Your task to perform on an android device: Open the Play Movies app and select the watchlist tab. Image 0: 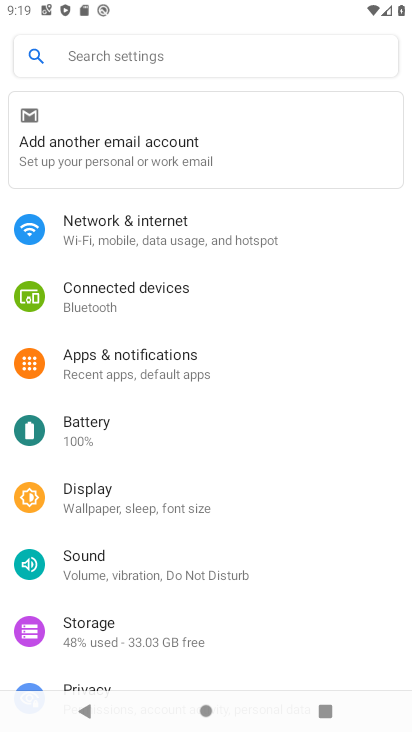
Step 0: press home button
Your task to perform on an android device: Open the Play Movies app and select the watchlist tab. Image 1: 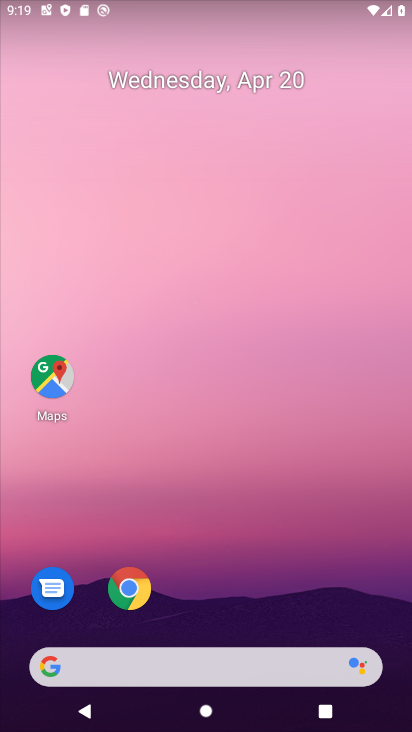
Step 1: drag from (214, 615) to (113, 123)
Your task to perform on an android device: Open the Play Movies app and select the watchlist tab. Image 2: 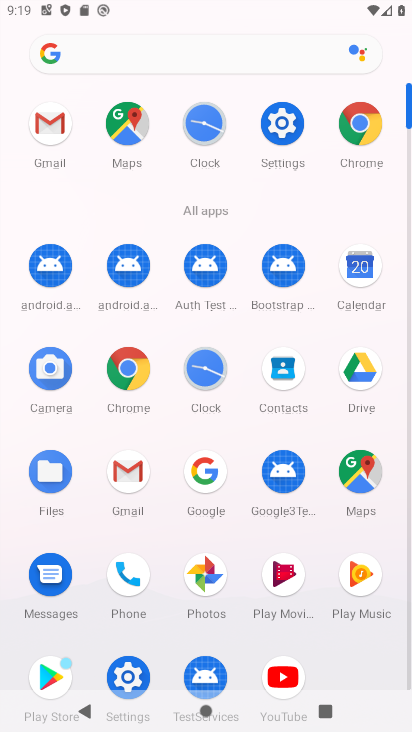
Step 2: click (276, 575)
Your task to perform on an android device: Open the Play Movies app and select the watchlist tab. Image 3: 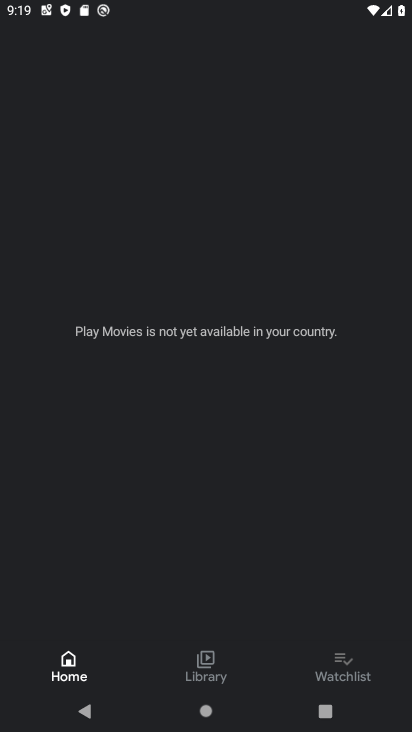
Step 3: click (351, 658)
Your task to perform on an android device: Open the Play Movies app and select the watchlist tab. Image 4: 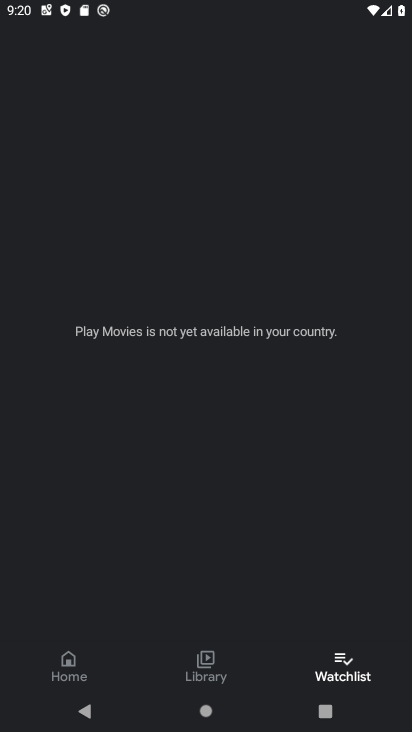
Step 4: task complete